Your task to perform on an android device: remove spam from my inbox in the gmail app Image 0: 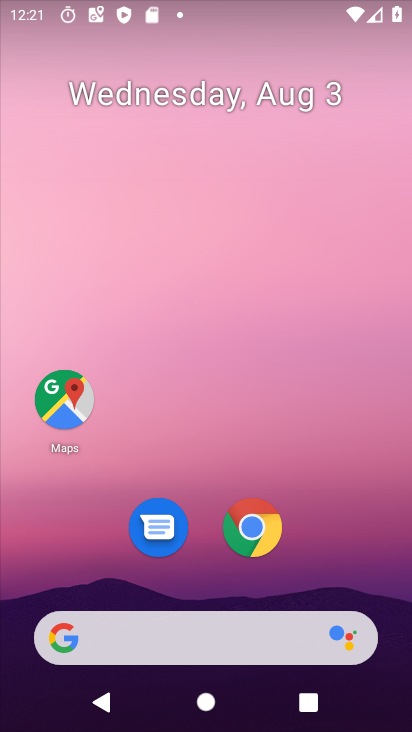
Step 0: drag from (199, 589) to (225, 16)
Your task to perform on an android device: remove spam from my inbox in the gmail app Image 1: 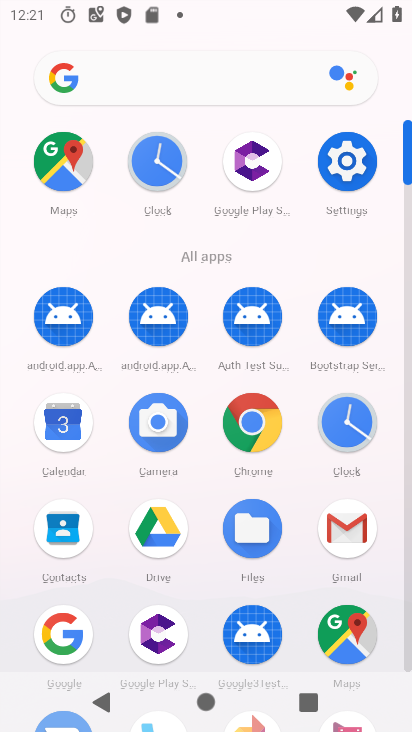
Step 1: click (355, 534)
Your task to perform on an android device: remove spam from my inbox in the gmail app Image 2: 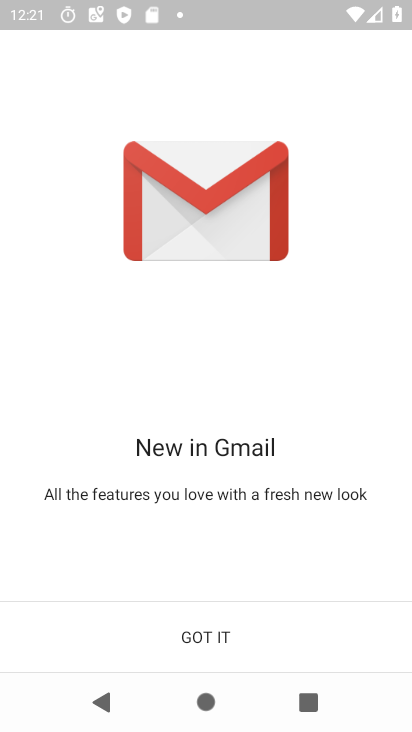
Step 2: click (248, 634)
Your task to perform on an android device: remove spam from my inbox in the gmail app Image 3: 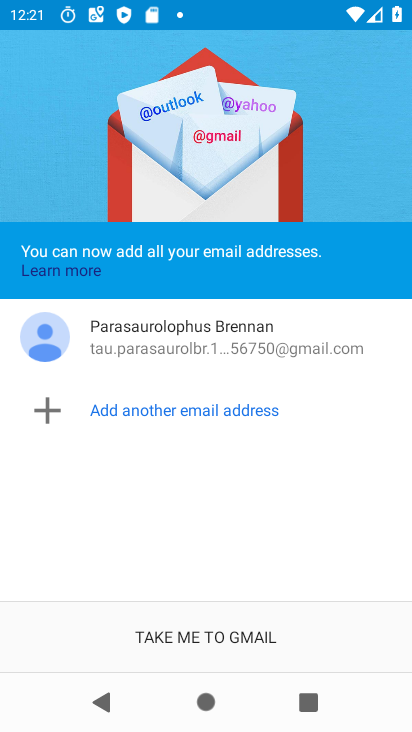
Step 3: click (214, 652)
Your task to perform on an android device: remove spam from my inbox in the gmail app Image 4: 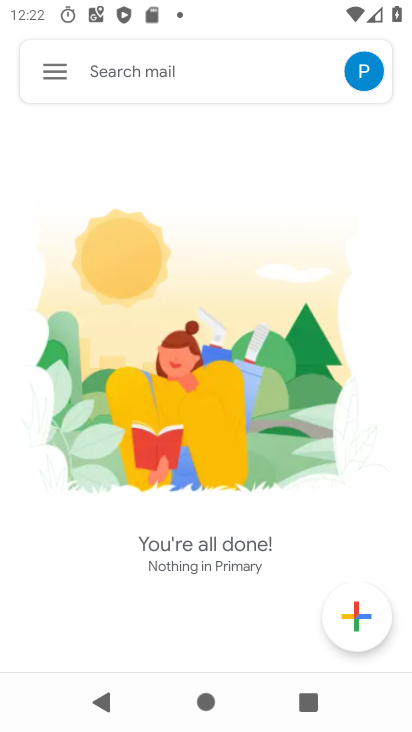
Step 4: click (64, 59)
Your task to perform on an android device: remove spam from my inbox in the gmail app Image 5: 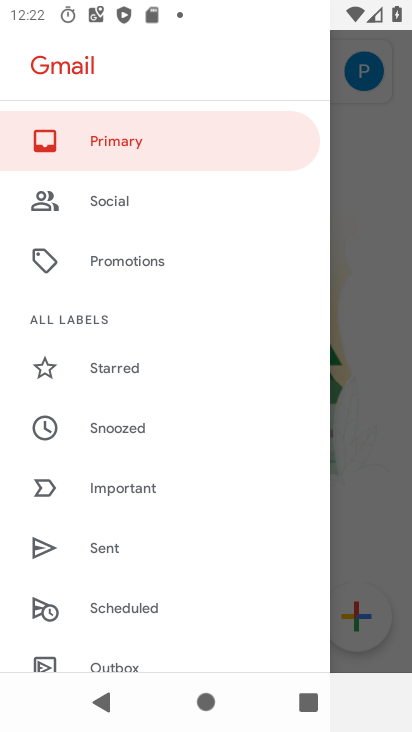
Step 5: drag from (147, 560) to (184, 257)
Your task to perform on an android device: remove spam from my inbox in the gmail app Image 6: 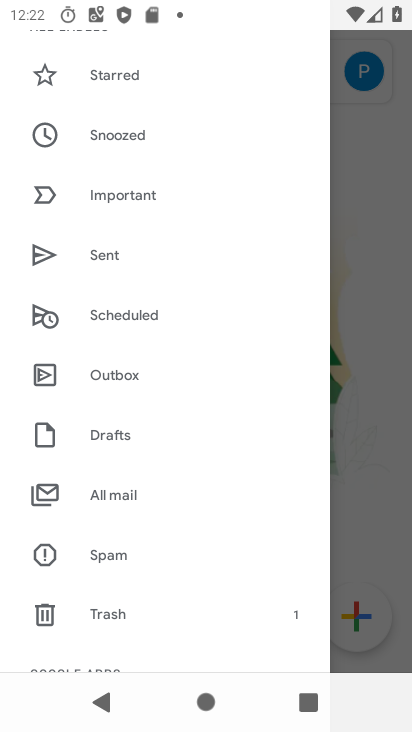
Step 6: click (118, 560)
Your task to perform on an android device: remove spam from my inbox in the gmail app Image 7: 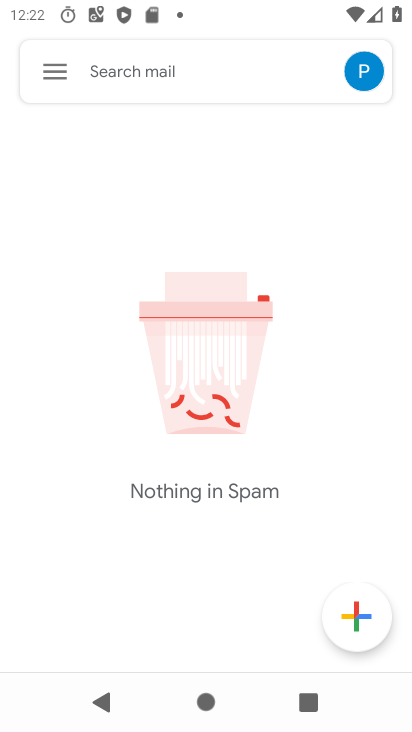
Step 7: task complete